Your task to perform on an android device: Open sound settings Image 0: 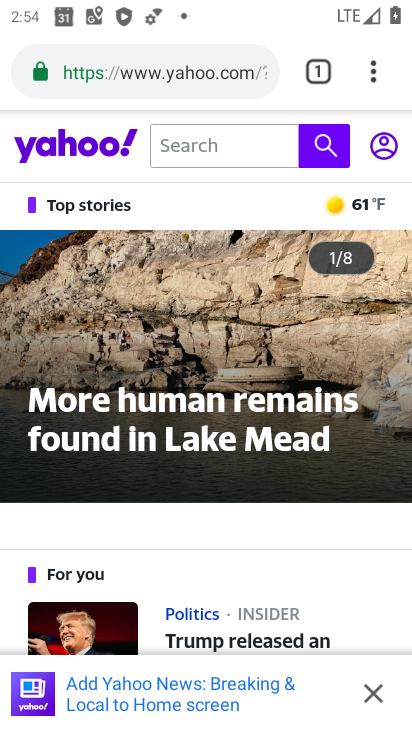
Step 0: press home button
Your task to perform on an android device: Open sound settings Image 1: 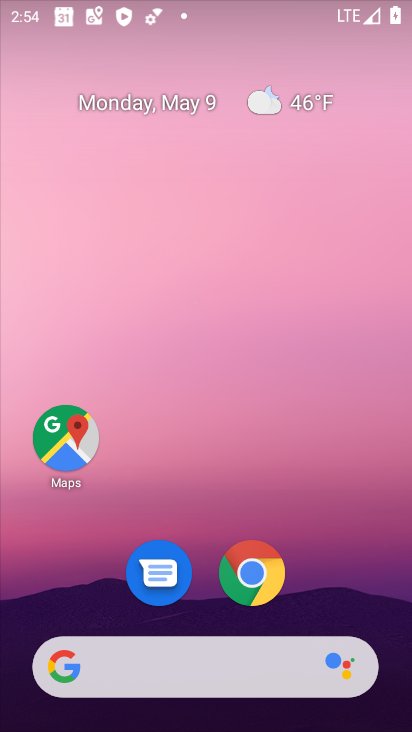
Step 1: drag from (192, 598) to (225, 45)
Your task to perform on an android device: Open sound settings Image 2: 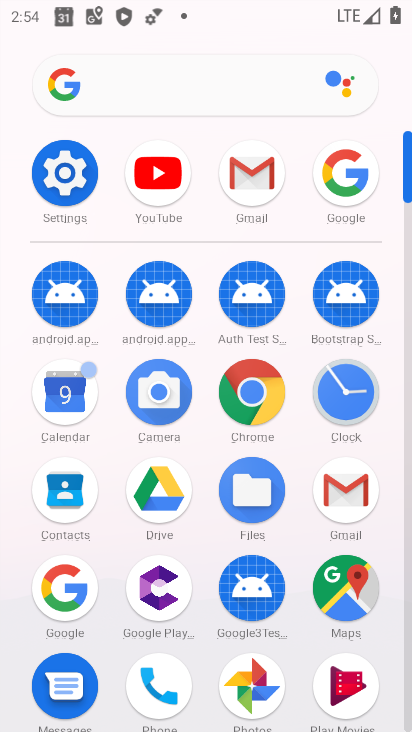
Step 2: click (69, 159)
Your task to perform on an android device: Open sound settings Image 3: 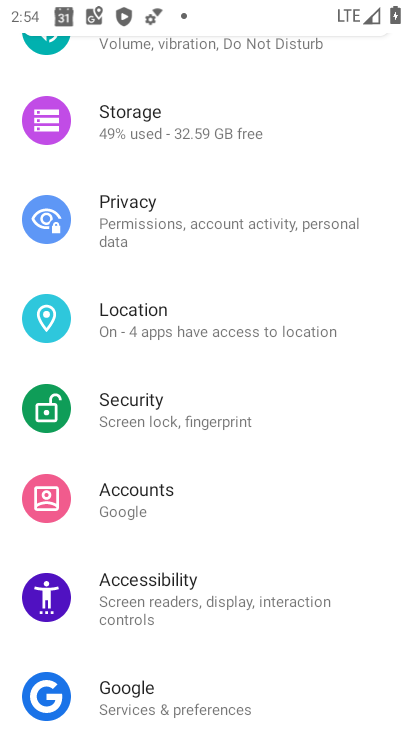
Step 3: drag from (220, 537) to (304, 555)
Your task to perform on an android device: Open sound settings Image 4: 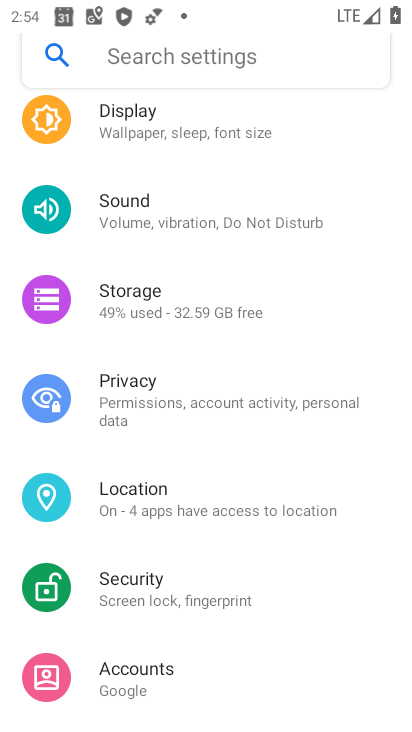
Step 4: click (134, 244)
Your task to perform on an android device: Open sound settings Image 5: 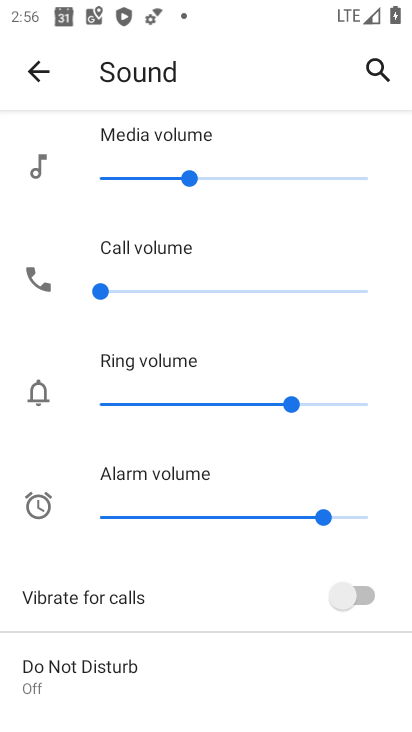
Step 5: task complete